Your task to perform on an android device: turn off improve location accuracy Image 0: 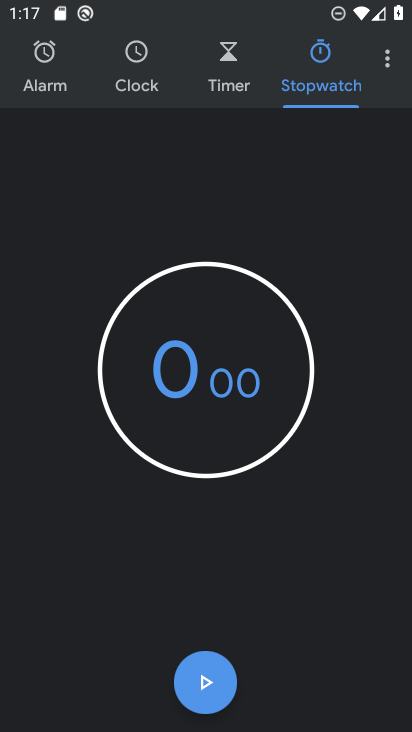
Step 0: press home button
Your task to perform on an android device: turn off improve location accuracy Image 1: 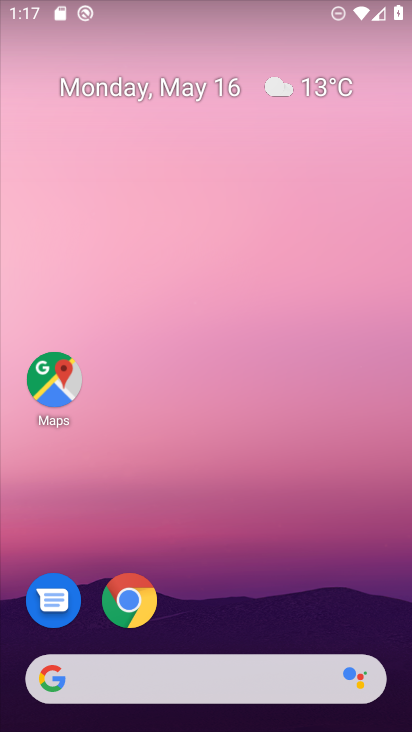
Step 1: drag from (212, 636) to (218, 49)
Your task to perform on an android device: turn off improve location accuracy Image 2: 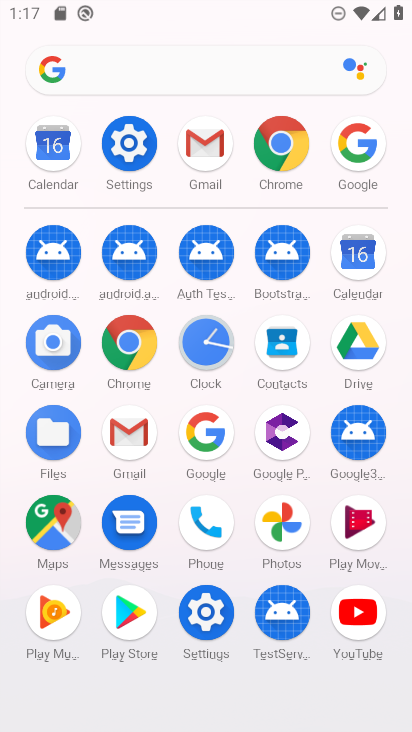
Step 2: click (129, 135)
Your task to perform on an android device: turn off improve location accuracy Image 3: 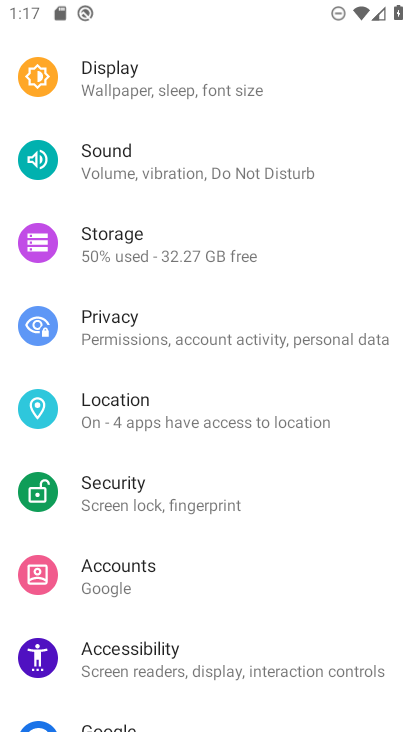
Step 3: click (159, 403)
Your task to perform on an android device: turn off improve location accuracy Image 4: 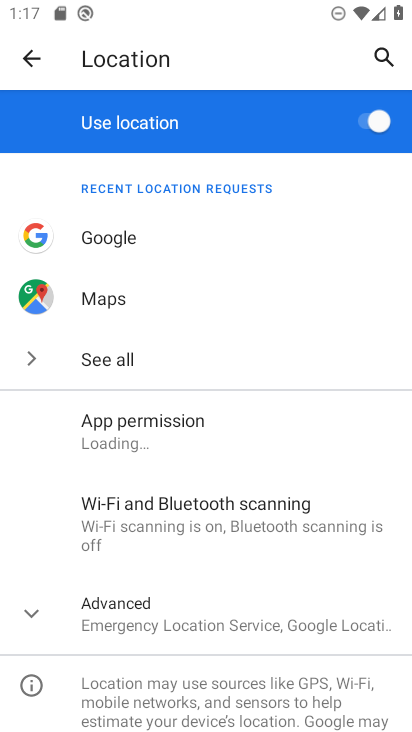
Step 4: click (124, 615)
Your task to perform on an android device: turn off improve location accuracy Image 5: 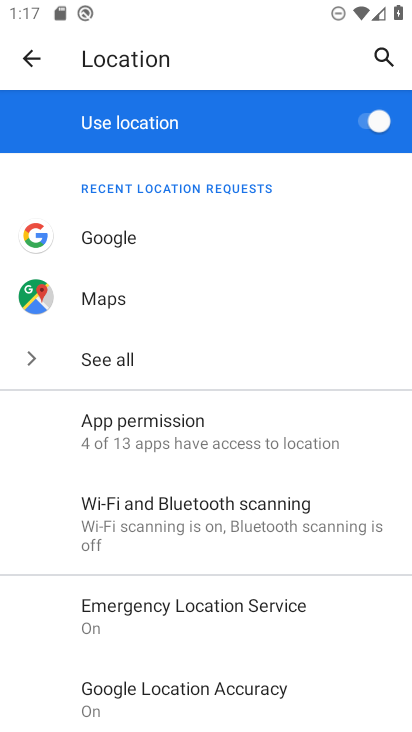
Step 5: click (161, 683)
Your task to perform on an android device: turn off improve location accuracy Image 6: 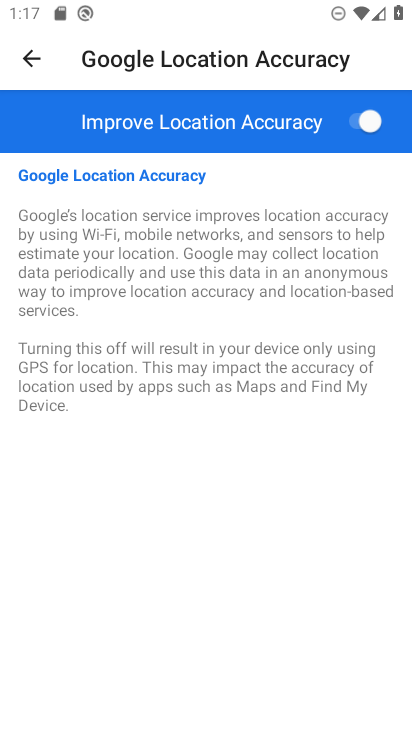
Step 6: click (356, 121)
Your task to perform on an android device: turn off improve location accuracy Image 7: 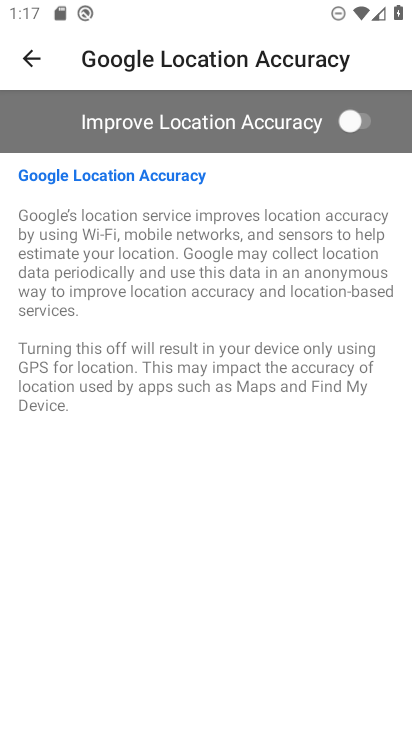
Step 7: task complete